Your task to perform on an android device: change the clock display to analog Image 0: 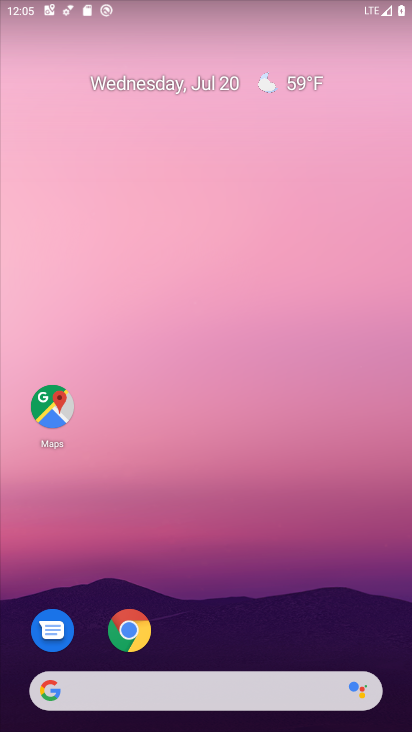
Step 0: drag from (380, 634) to (303, 120)
Your task to perform on an android device: change the clock display to analog Image 1: 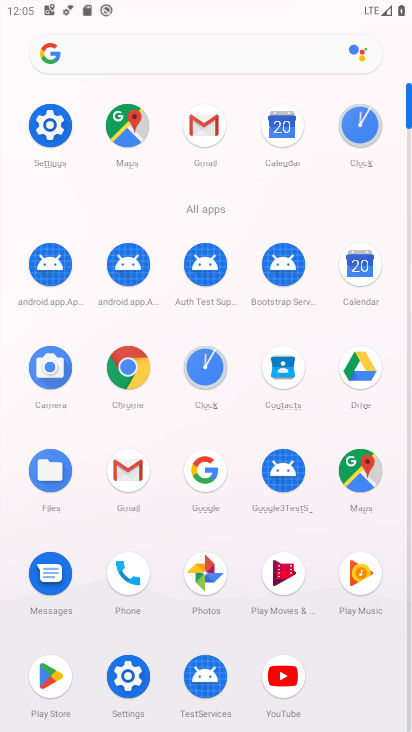
Step 1: click (203, 365)
Your task to perform on an android device: change the clock display to analog Image 2: 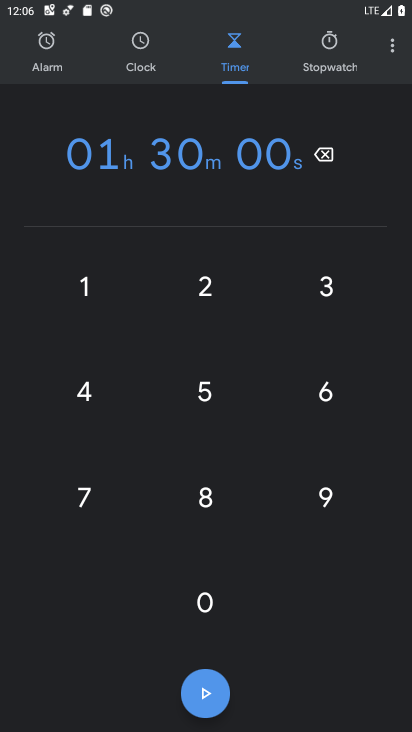
Step 2: click (391, 56)
Your task to perform on an android device: change the clock display to analog Image 3: 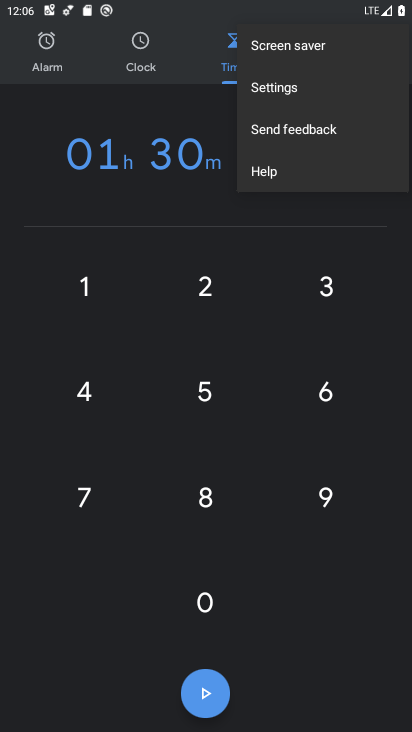
Step 3: click (272, 87)
Your task to perform on an android device: change the clock display to analog Image 4: 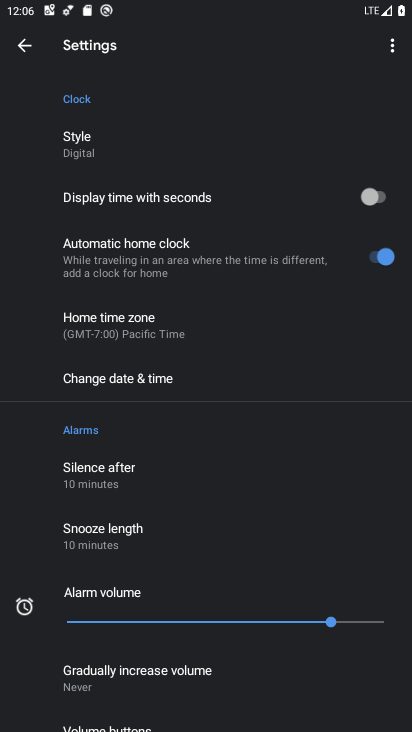
Step 4: click (79, 141)
Your task to perform on an android device: change the clock display to analog Image 5: 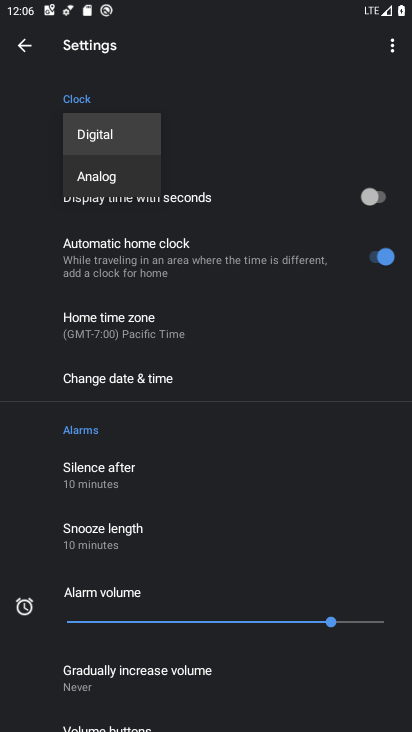
Step 5: click (100, 176)
Your task to perform on an android device: change the clock display to analog Image 6: 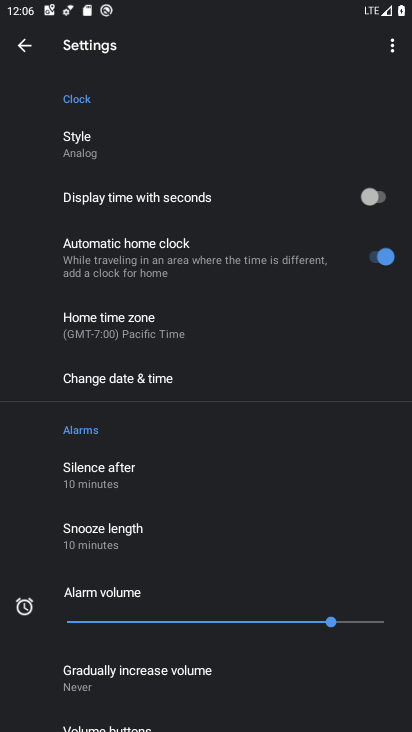
Step 6: task complete